Your task to perform on an android device: open chrome privacy settings Image 0: 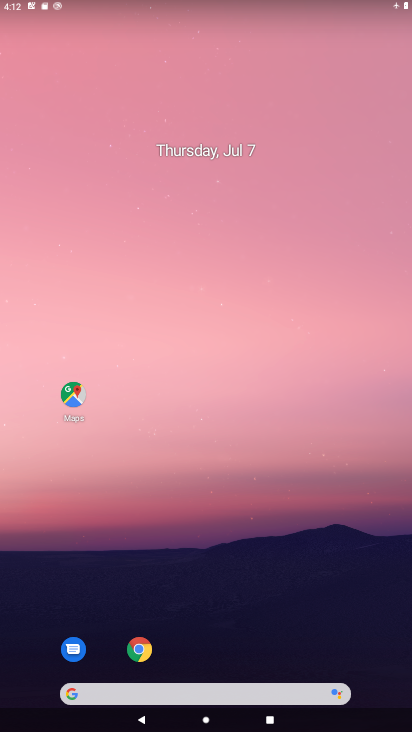
Step 0: click (142, 650)
Your task to perform on an android device: open chrome privacy settings Image 1: 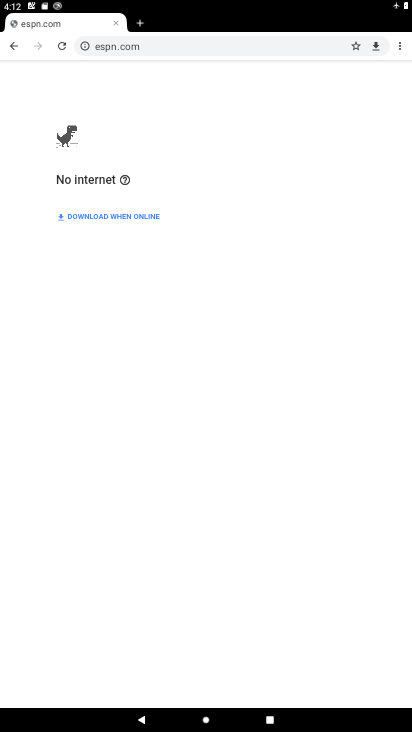
Step 1: click (399, 48)
Your task to perform on an android device: open chrome privacy settings Image 2: 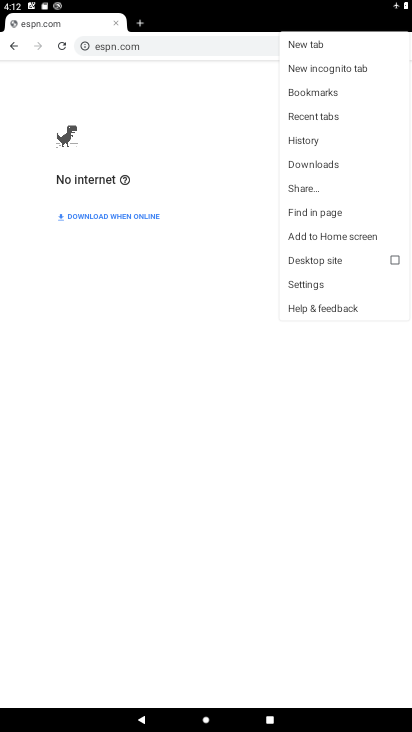
Step 2: click (311, 276)
Your task to perform on an android device: open chrome privacy settings Image 3: 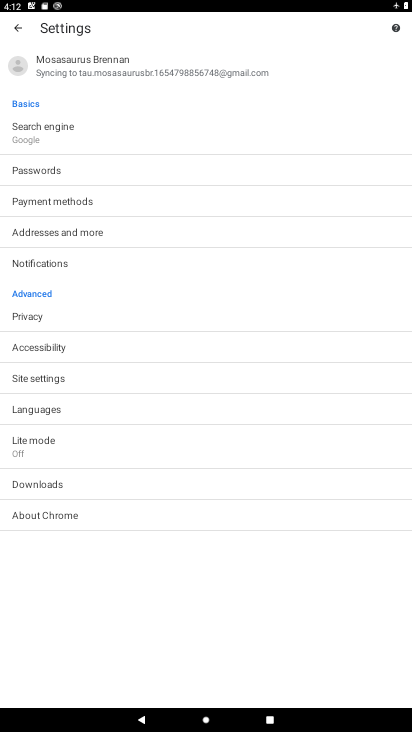
Step 3: click (30, 313)
Your task to perform on an android device: open chrome privacy settings Image 4: 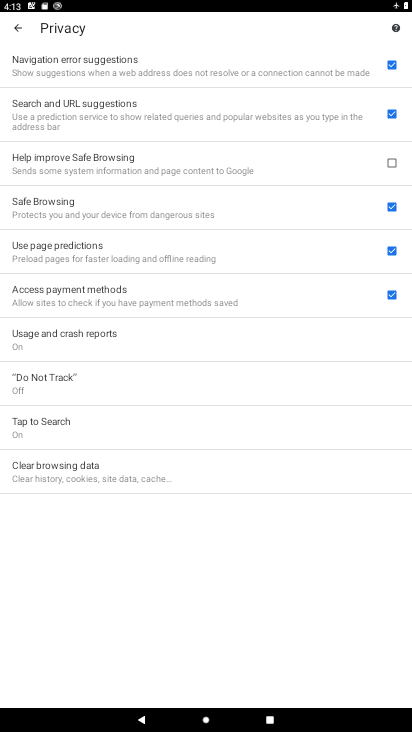
Step 4: task complete